Your task to perform on an android device: Open the Play Movies app and select the watchlist tab. Image 0: 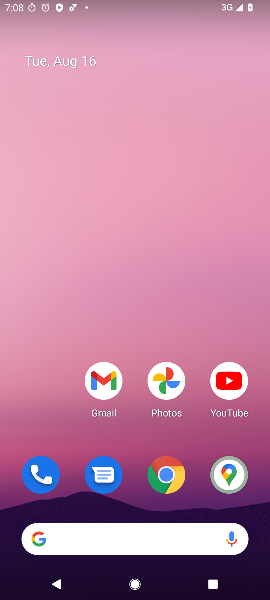
Step 0: drag from (192, 488) to (79, 55)
Your task to perform on an android device: Open the Play Movies app and select the watchlist tab. Image 1: 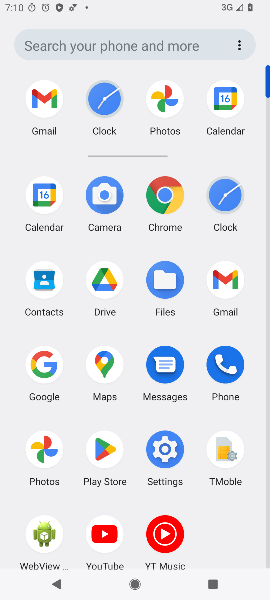
Step 1: task complete